Your task to perform on an android device: Go to CNN.com Image 0: 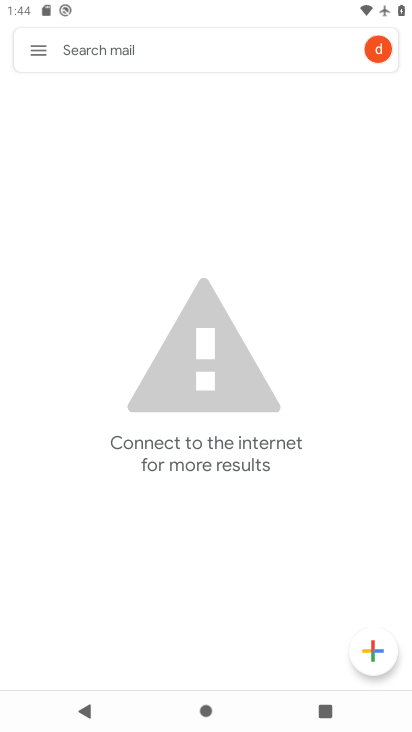
Step 0: press home button
Your task to perform on an android device: Go to CNN.com Image 1: 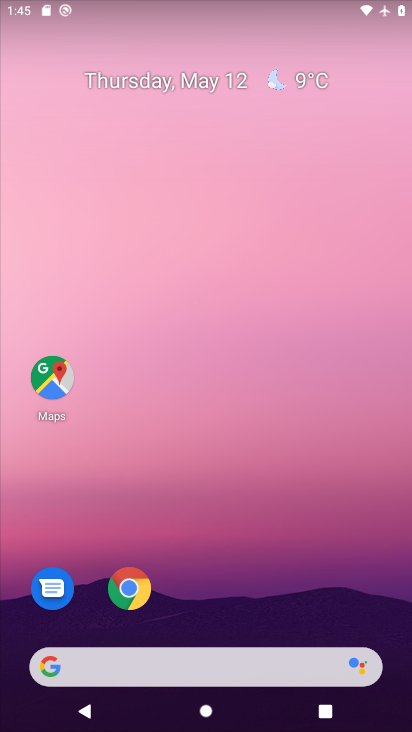
Step 1: drag from (300, 571) to (318, 32)
Your task to perform on an android device: Go to CNN.com Image 2: 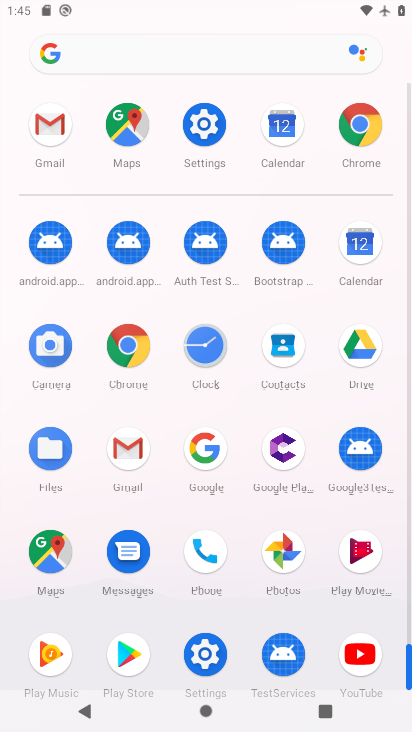
Step 2: click (353, 138)
Your task to perform on an android device: Go to CNN.com Image 3: 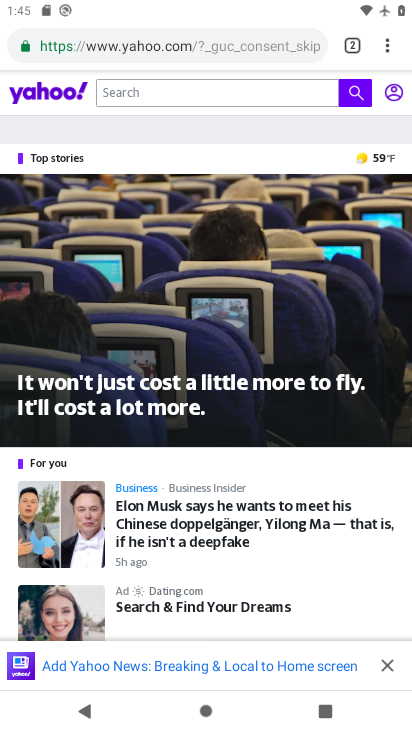
Step 3: click (227, 42)
Your task to perform on an android device: Go to CNN.com Image 4: 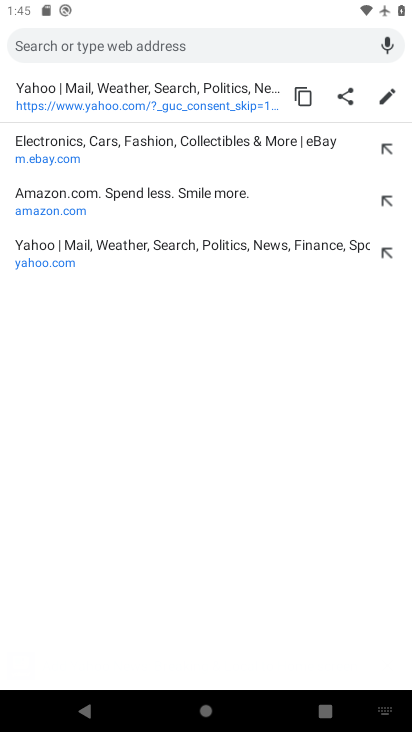
Step 4: type "cnn"
Your task to perform on an android device: Go to CNN.com Image 5: 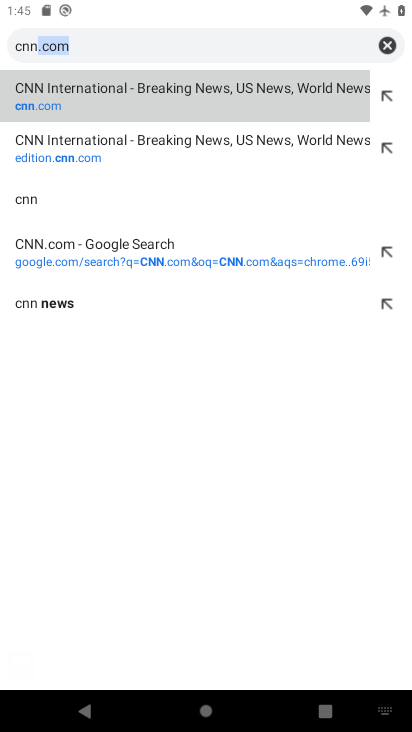
Step 5: press enter
Your task to perform on an android device: Go to CNN.com Image 6: 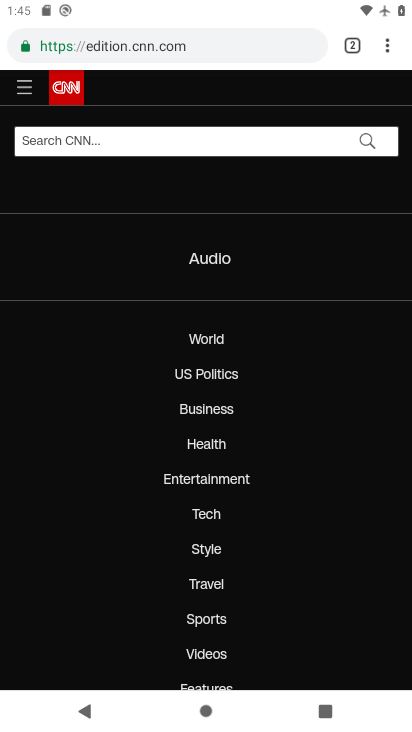
Step 6: task complete